Your task to perform on an android device: read, delete, or share a saved page in the chrome app Image 0: 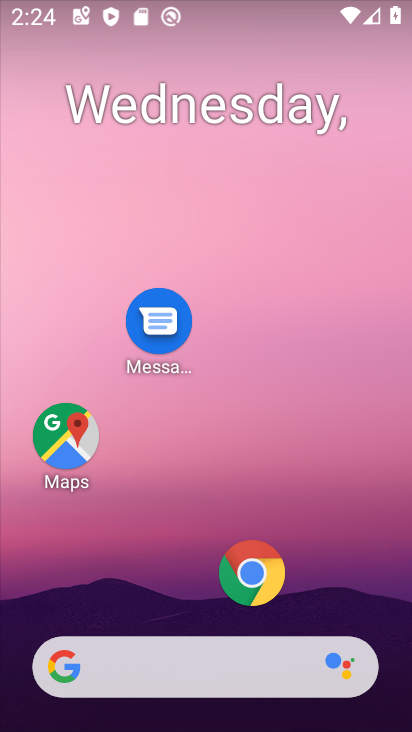
Step 0: click (190, 543)
Your task to perform on an android device: read, delete, or share a saved page in the chrome app Image 1: 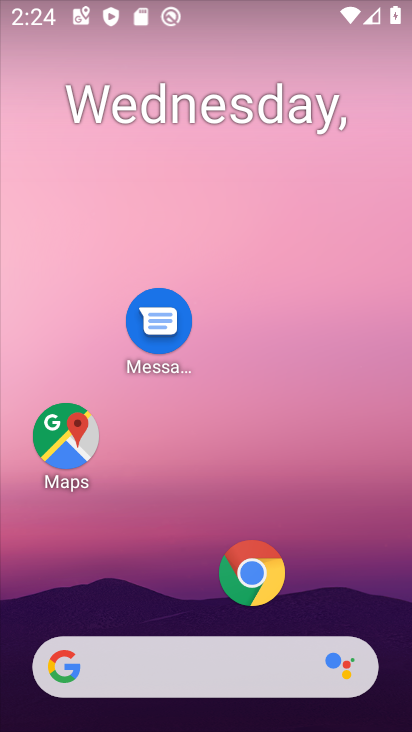
Step 1: click (258, 574)
Your task to perform on an android device: read, delete, or share a saved page in the chrome app Image 2: 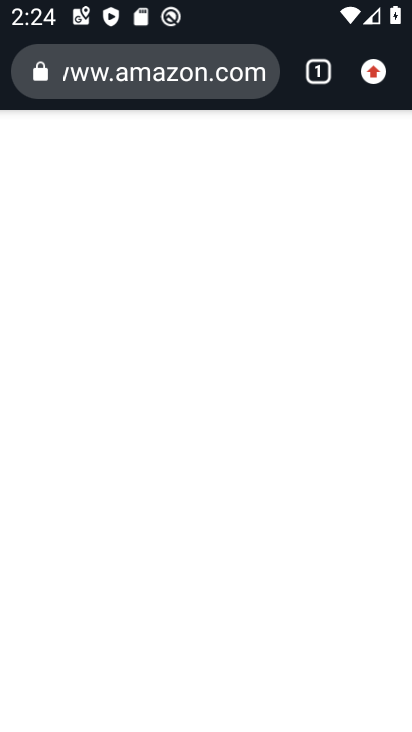
Step 2: click (375, 68)
Your task to perform on an android device: read, delete, or share a saved page in the chrome app Image 3: 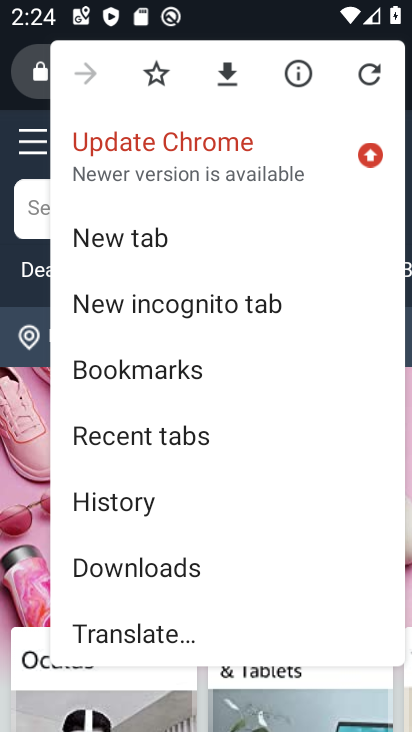
Step 3: click (186, 565)
Your task to perform on an android device: read, delete, or share a saved page in the chrome app Image 4: 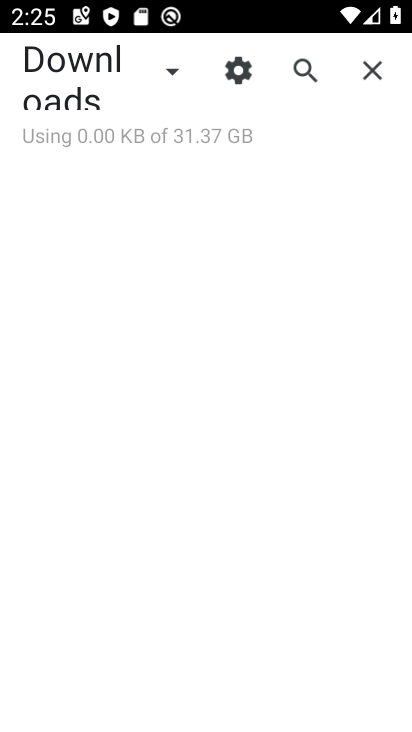
Step 4: task complete